Your task to perform on an android device: change the clock display to analog Image 0: 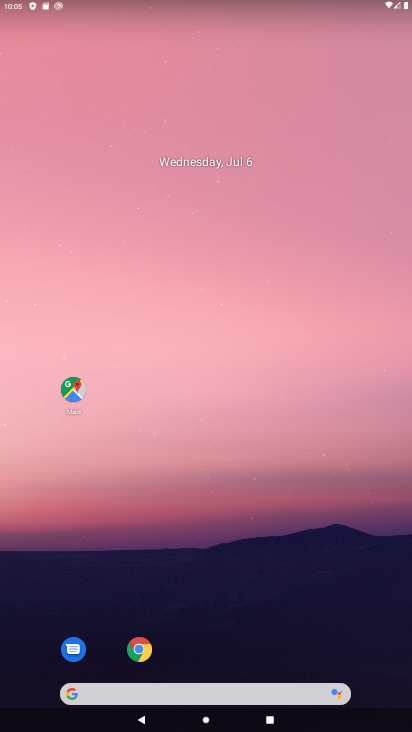
Step 0: drag from (373, 667) to (257, 40)
Your task to perform on an android device: change the clock display to analog Image 1: 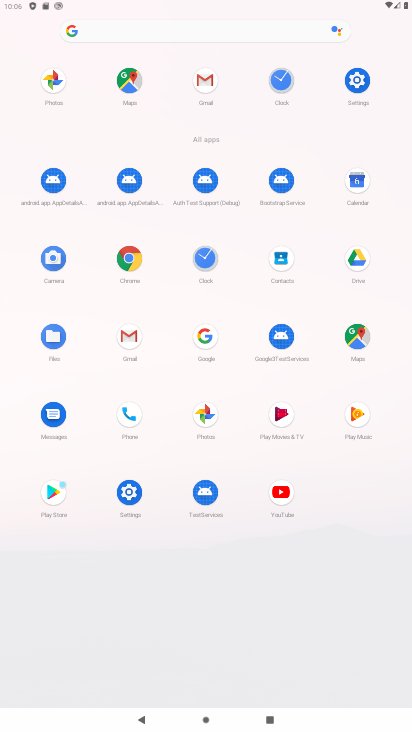
Step 1: click (212, 256)
Your task to perform on an android device: change the clock display to analog Image 2: 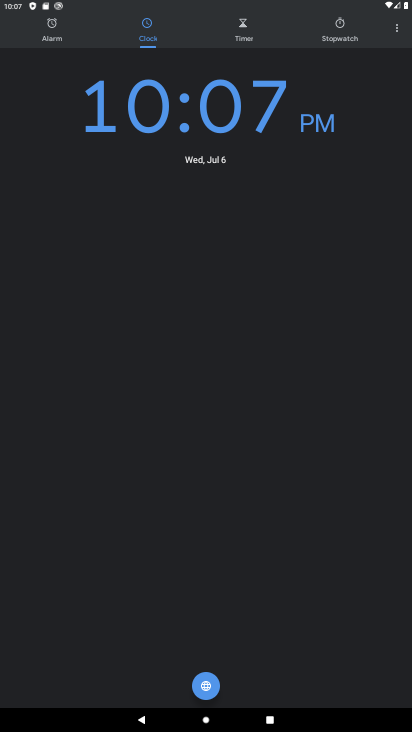
Step 2: click (393, 32)
Your task to perform on an android device: change the clock display to analog Image 3: 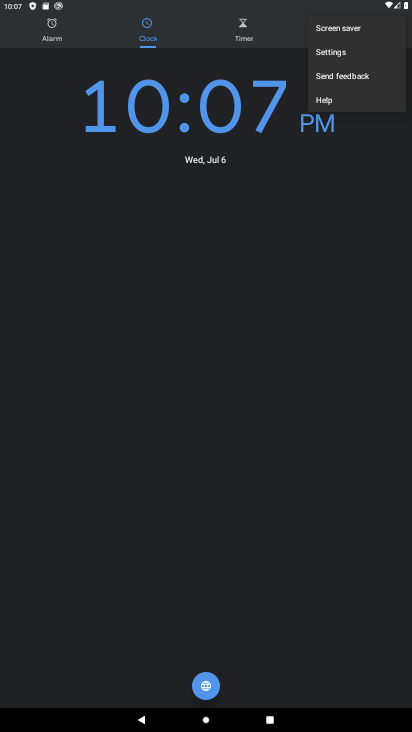
Step 3: click (348, 51)
Your task to perform on an android device: change the clock display to analog Image 4: 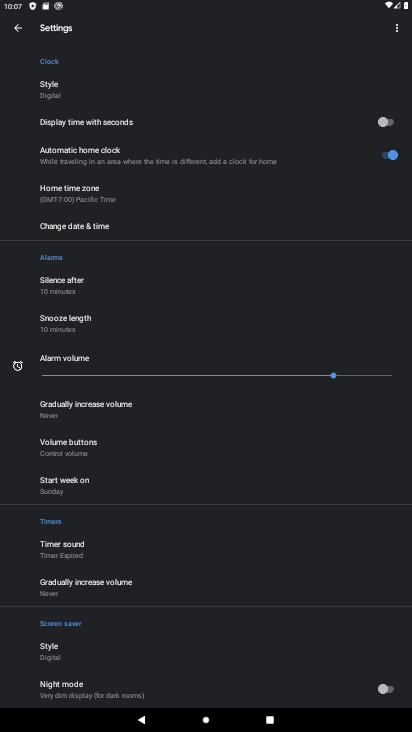
Step 4: click (56, 99)
Your task to perform on an android device: change the clock display to analog Image 5: 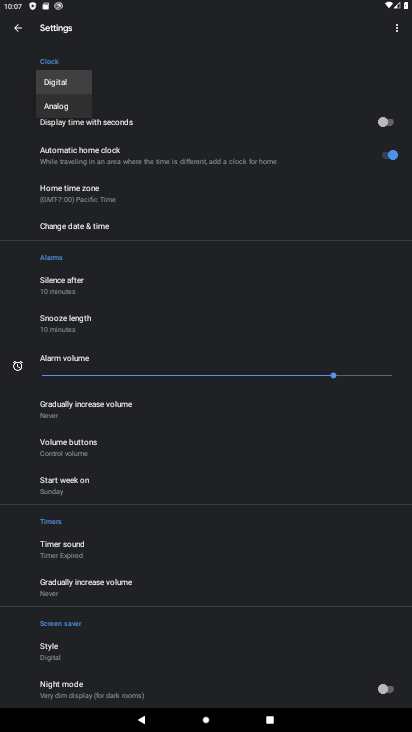
Step 5: click (61, 115)
Your task to perform on an android device: change the clock display to analog Image 6: 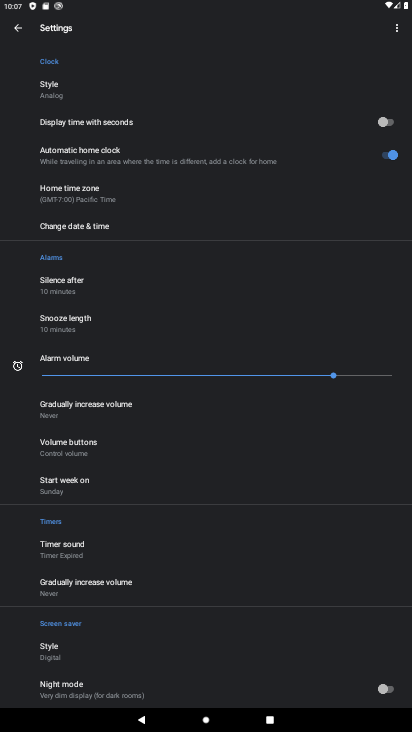
Step 6: task complete